Your task to perform on an android device: Do I have any events this weekend? Image 0: 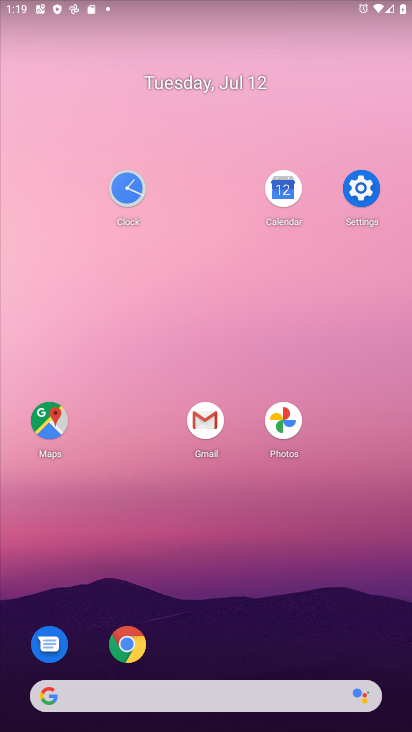
Step 0: click (266, 187)
Your task to perform on an android device: Do I have any events this weekend? Image 1: 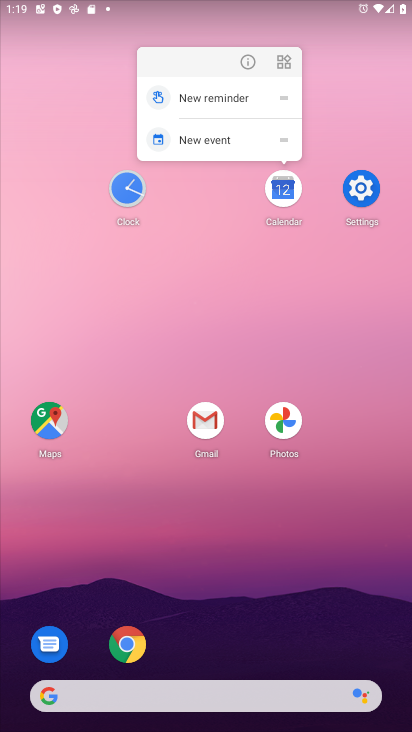
Step 1: click (285, 202)
Your task to perform on an android device: Do I have any events this weekend? Image 2: 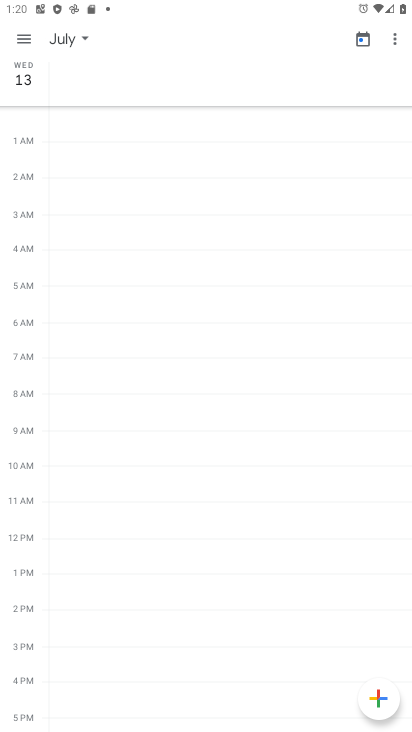
Step 2: click (30, 34)
Your task to perform on an android device: Do I have any events this weekend? Image 3: 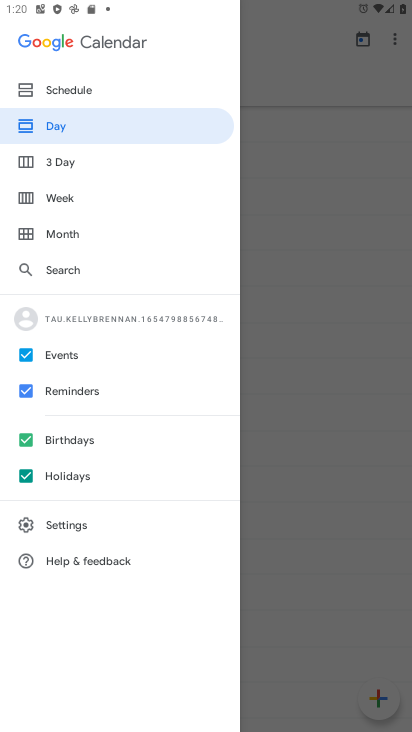
Step 3: click (70, 201)
Your task to perform on an android device: Do I have any events this weekend? Image 4: 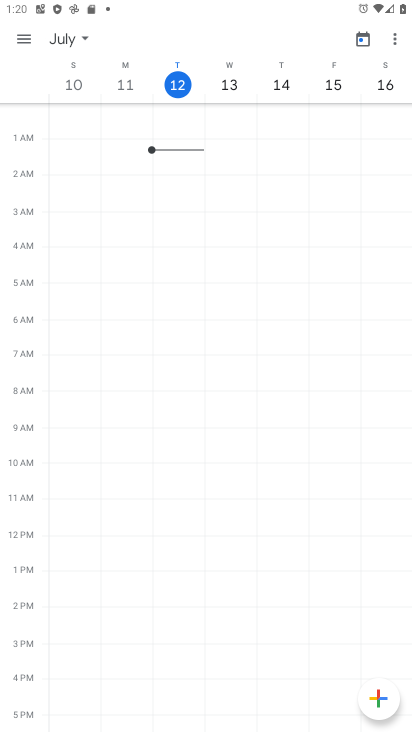
Step 4: task complete